Your task to perform on an android device: What's the weather going to be tomorrow? Image 0: 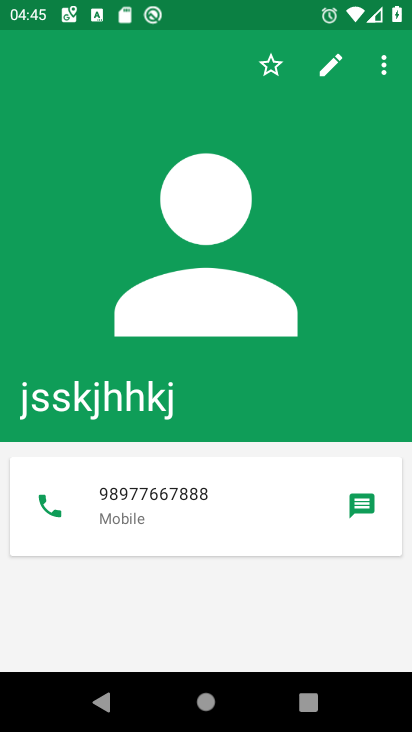
Step 0: press home button
Your task to perform on an android device: What's the weather going to be tomorrow? Image 1: 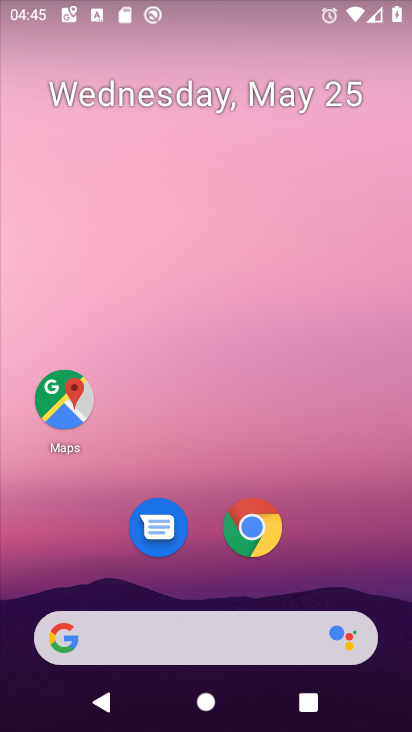
Step 1: drag from (184, 373) to (220, 82)
Your task to perform on an android device: What's the weather going to be tomorrow? Image 2: 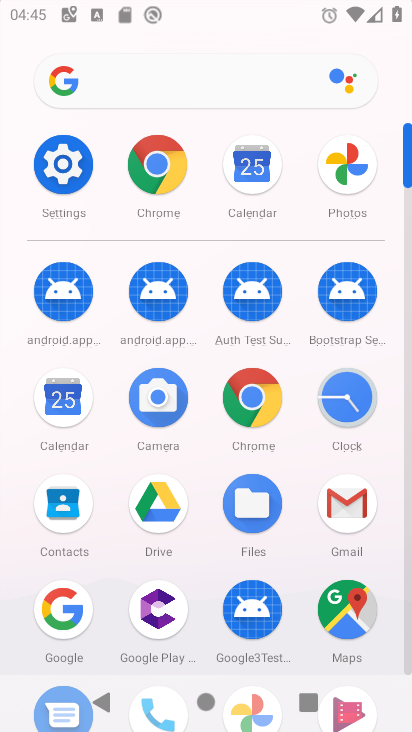
Step 2: click (229, 59)
Your task to perform on an android device: What's the weather going to be tomorrow? Image 3: 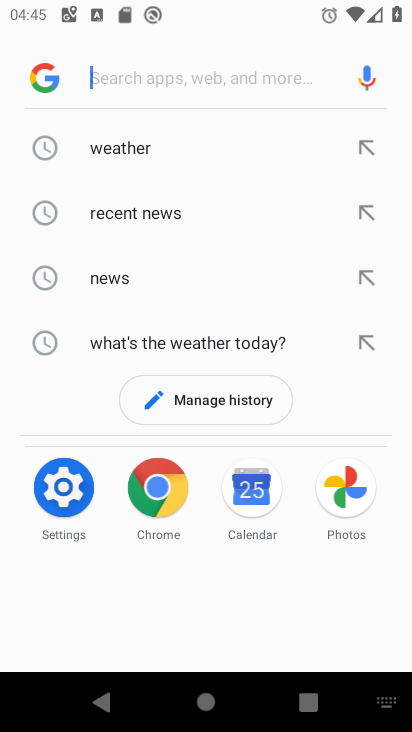
Step 3: press home button
Your task to perform on an android device: What's the weather going to be tomorrow? Image 4: 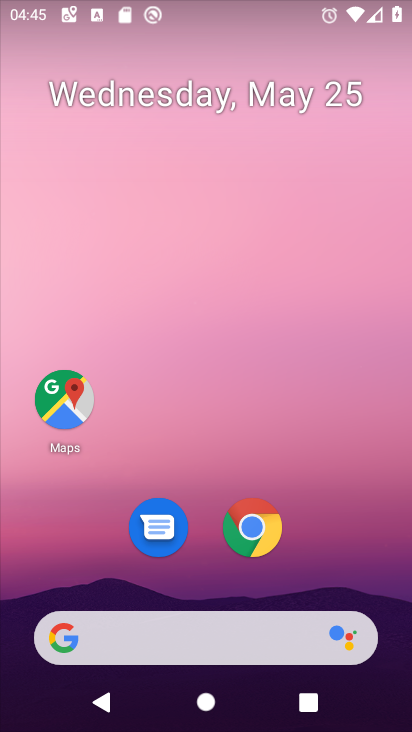
Step 4: drag from (222, 461) to (361, 7)
Your task to perform on an android device: What's the weather going to be tomorrow? Image 5: 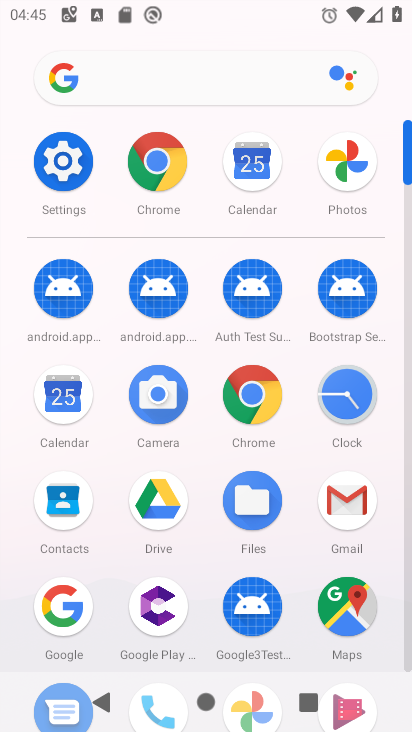
Step 5: click (161, 189)
Your task to perform on an android device: What's the weather going to be tomorrow? Image 6: 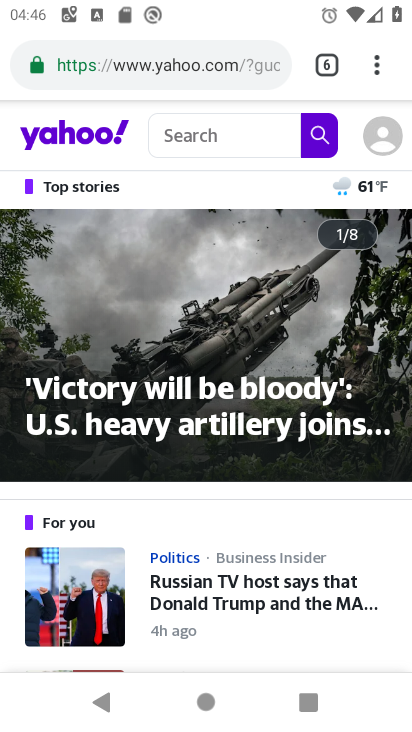
Step 6: click (249, 69)
Your task to perform on an android device: What's the weather going to be tomorrow? Image 7: 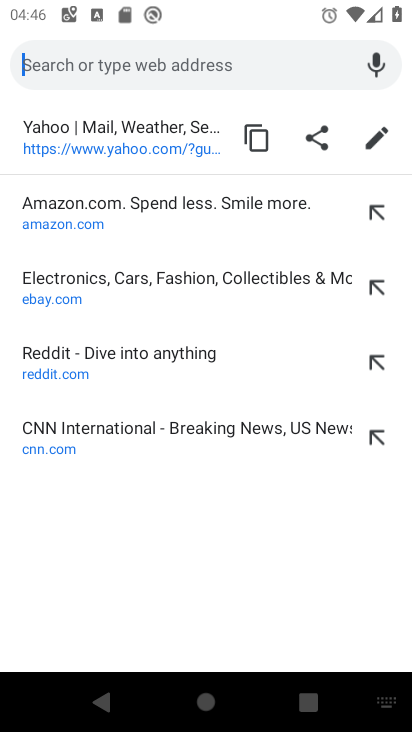
Step 7: type "whats the weather going to be tomorrow"
Your task to perform on an android device: What's the weather going to be tomorrow? Image 8: 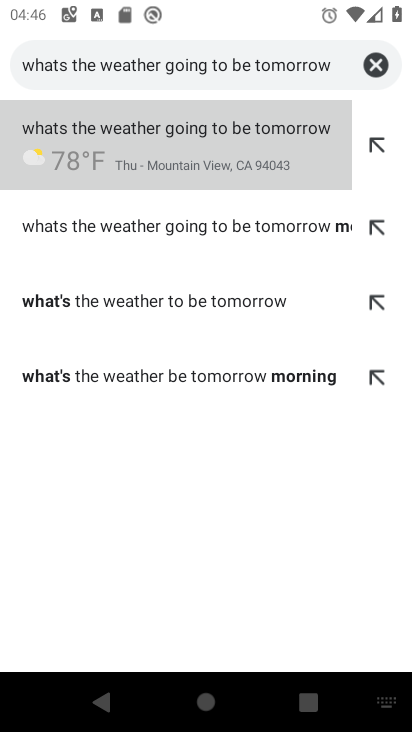
Step 8: click (224, 142)
Your task to perform on an android device: What's the weather going to be tomorrow? Image 9: 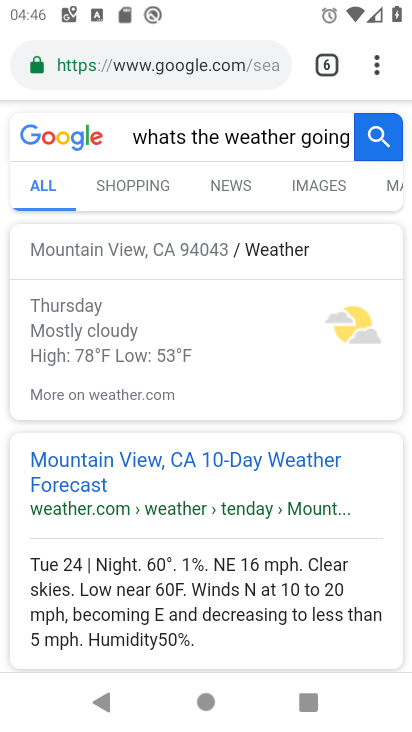
Step 9: task complete